Your task to perform on an android device: Open ESPN.com Image 0: 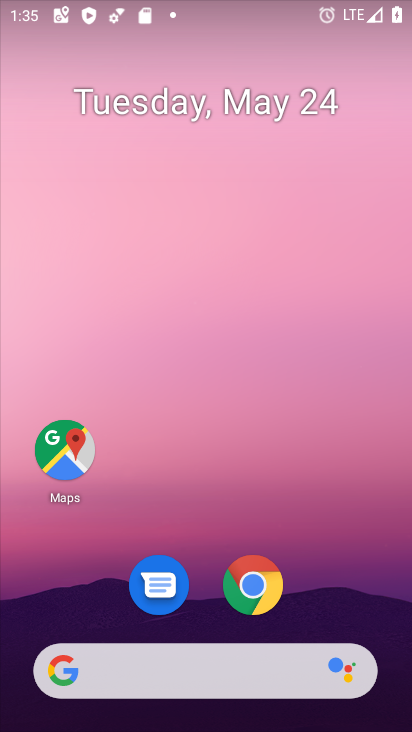
Step 0: click (248, 658)
Your task to perform on an android device: Open ESPN.com Image 1: 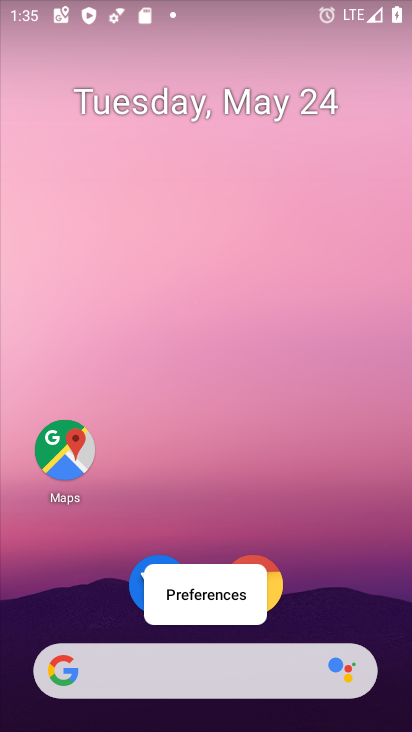
Step 1: click (266, 671)
Your task to perform on an android device: Open ESPN.com Image 2: 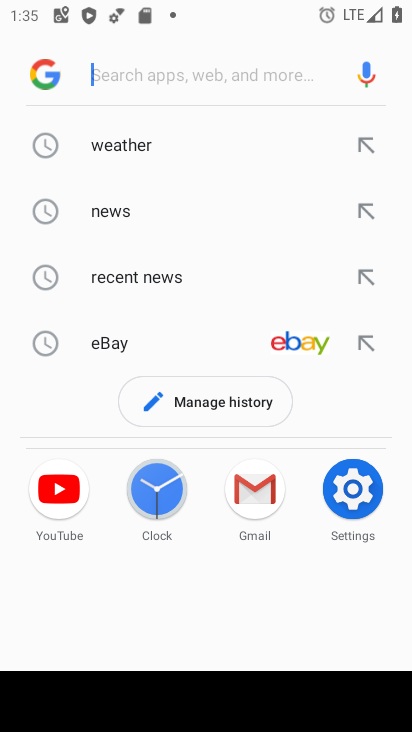
Step 2: type "espn.com"
Your task to perform on an android device: Open ESPN.com Image 3: 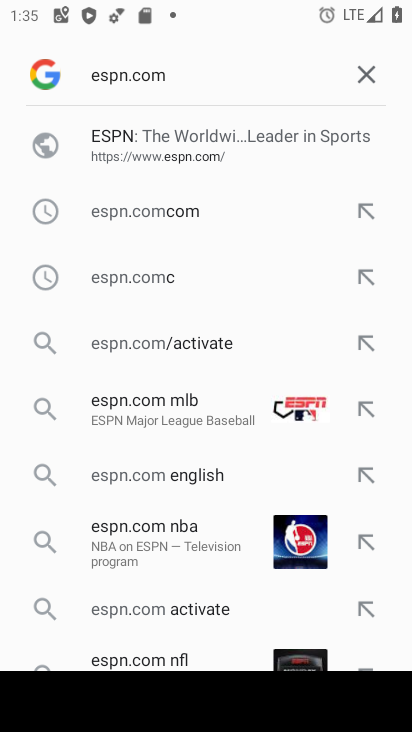
Step 3: click (123, 140)
Your task to perform on an android device: Open ESPN.com Image 4: 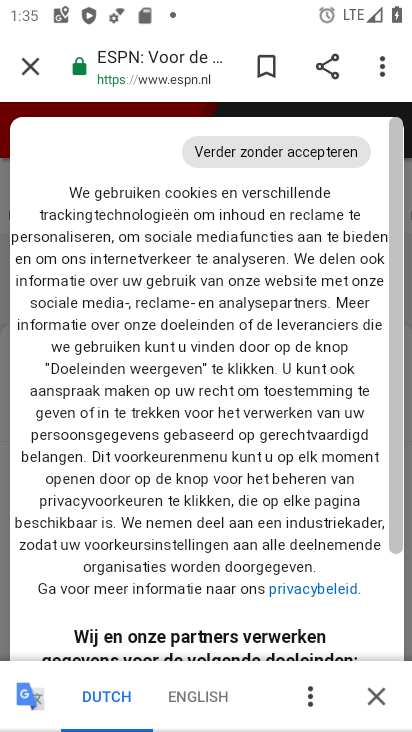
Step 4: task complete